Your task to perform on an android device: turn on translation in the chrome app Image 0: 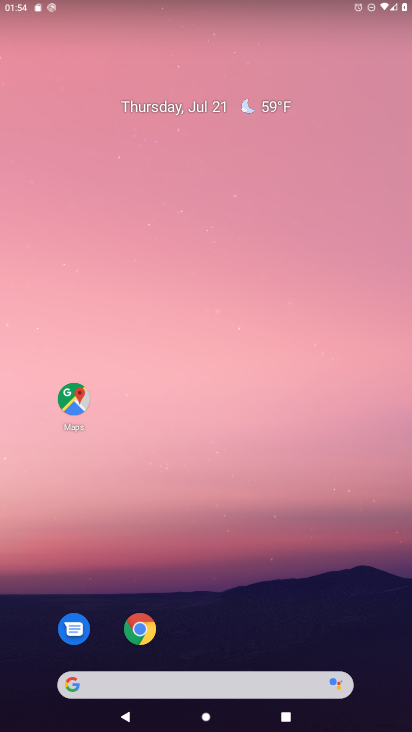
Step 0: click (141, 628)
Your task to perform on an android device: turn on translation in the chrome app Image 1: 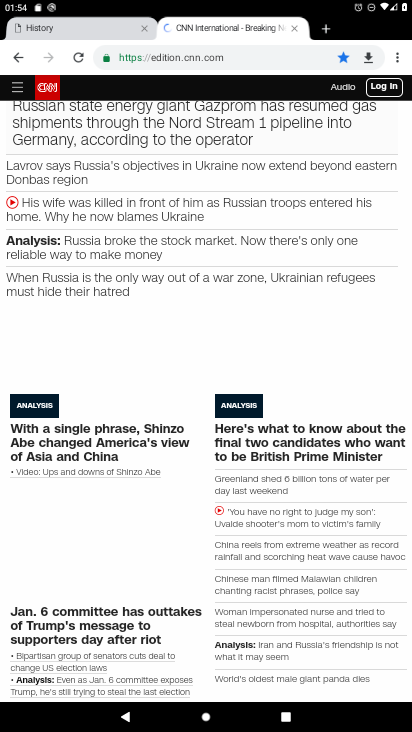
Step 1: click (394, 60)
Your task to perform on an android device: turn on translation in the chrome app Image 2: 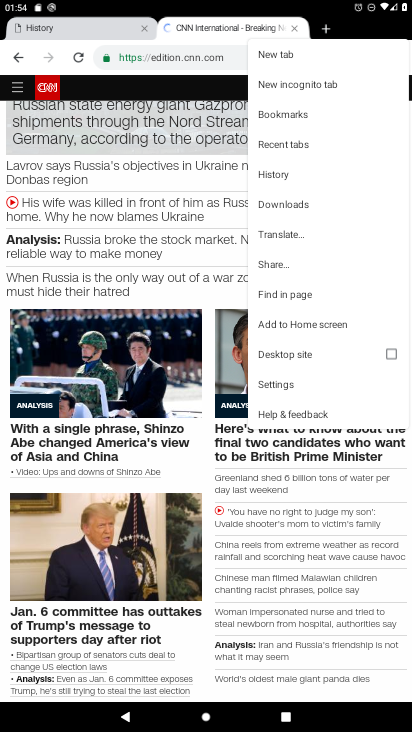
Step 2: click (284, 381)
Your task to perform on an android device: turn on translation in the chrome app Image 3: 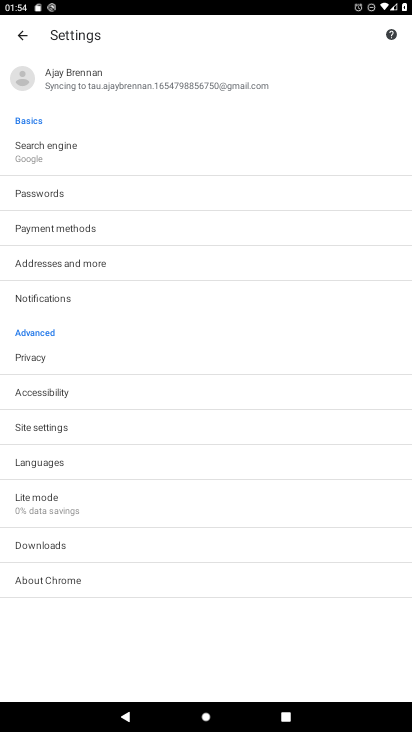
Step 3: click (40, 458)
Your task to perform on an android device: turn on translation in the chrome app Image 4: 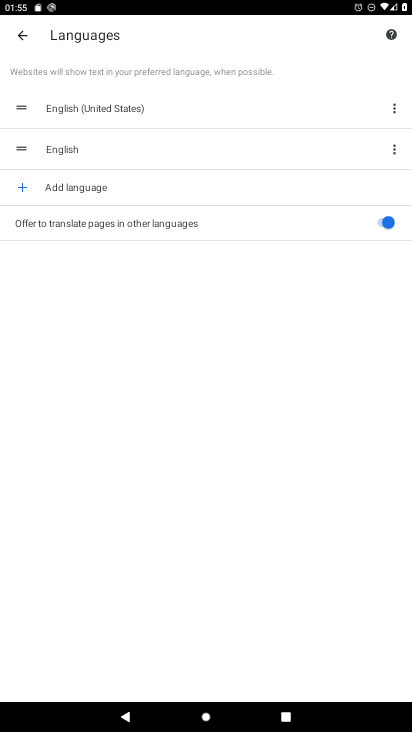
Step 4: task complete